Your task to perform on an android device: turn off translation in the chrome app Image 0: 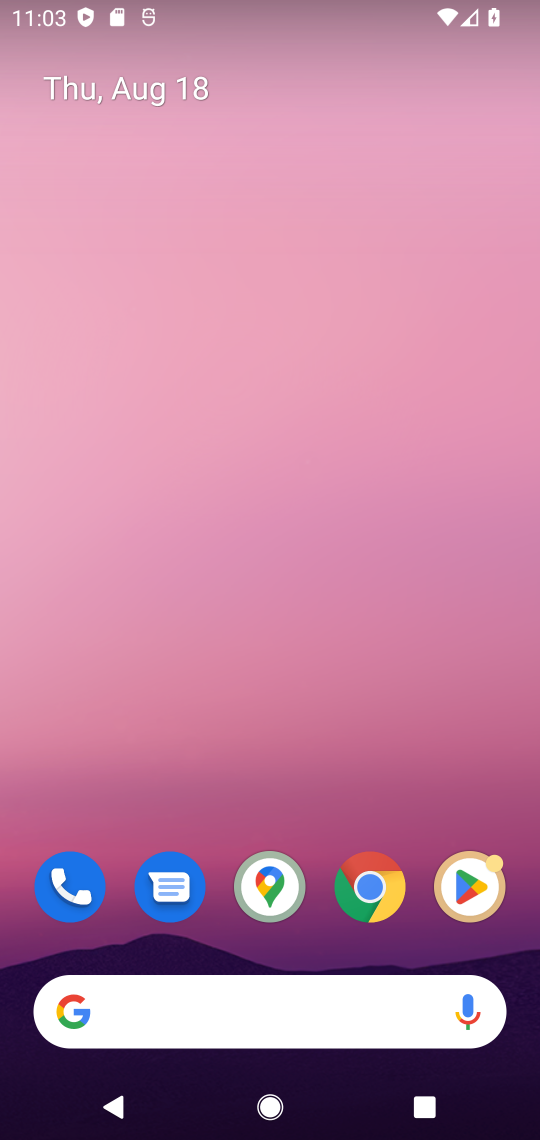
Step 0: click (397, 880)
Your task to perform on an android device: turn off translation in the chrome app Image 1: 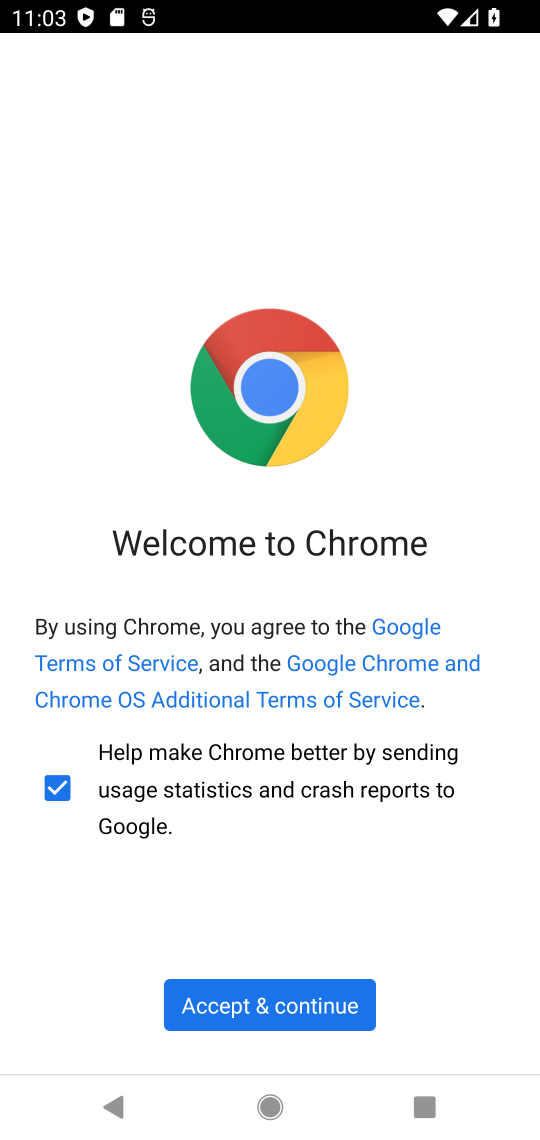
Step 1: click (240, 986)
Your task to perform on an android device: turn off translation in the chrome app Image 2: 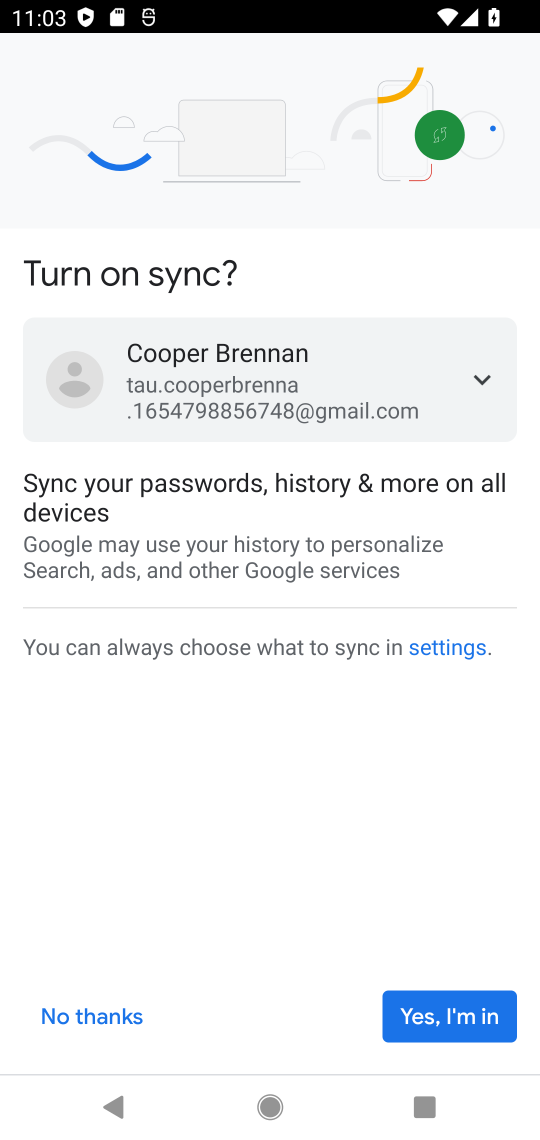
Step 2: click (441, 1013)
Your task to perform on an android device: turn off translation in the chrome app Image 3: 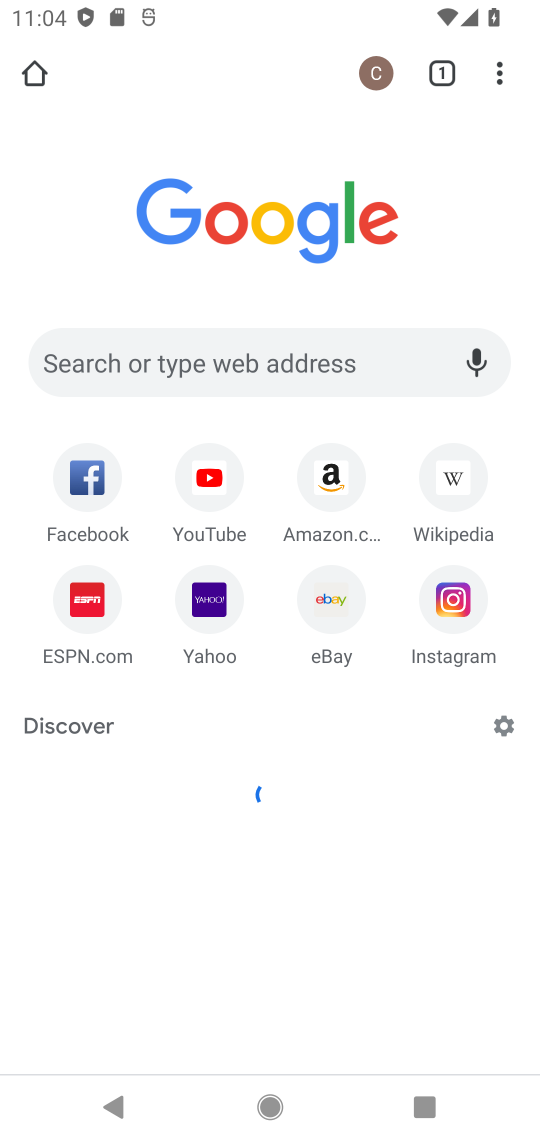
Step 3: click (506, 71)
Your task to perform on an android device: turn off translation in the chrome app Image 4: 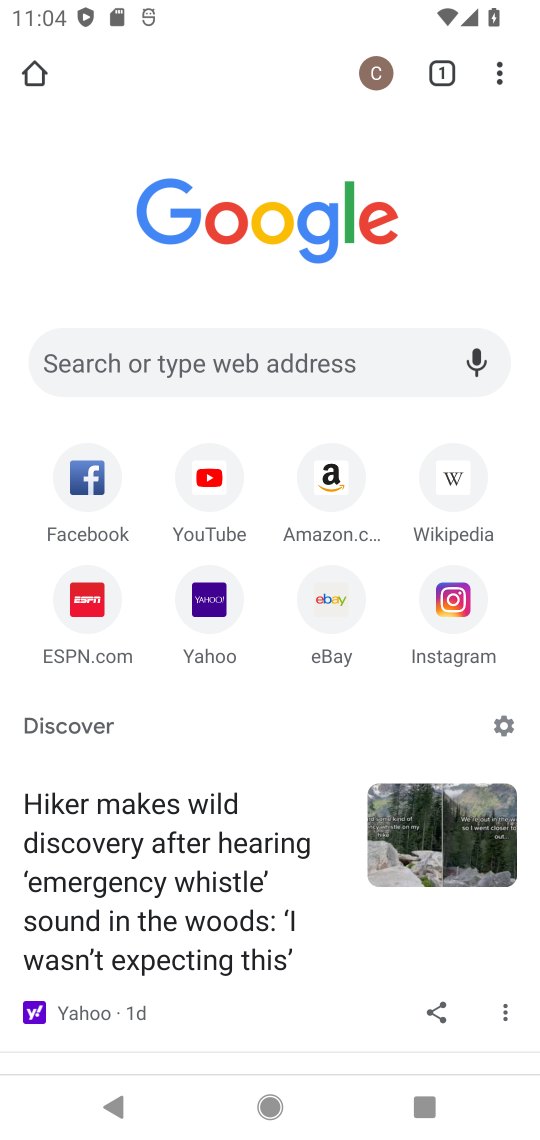
Step 4: click (488, 68)
Your task to perform on an android device: turn off translation in the chrome app Image 5: 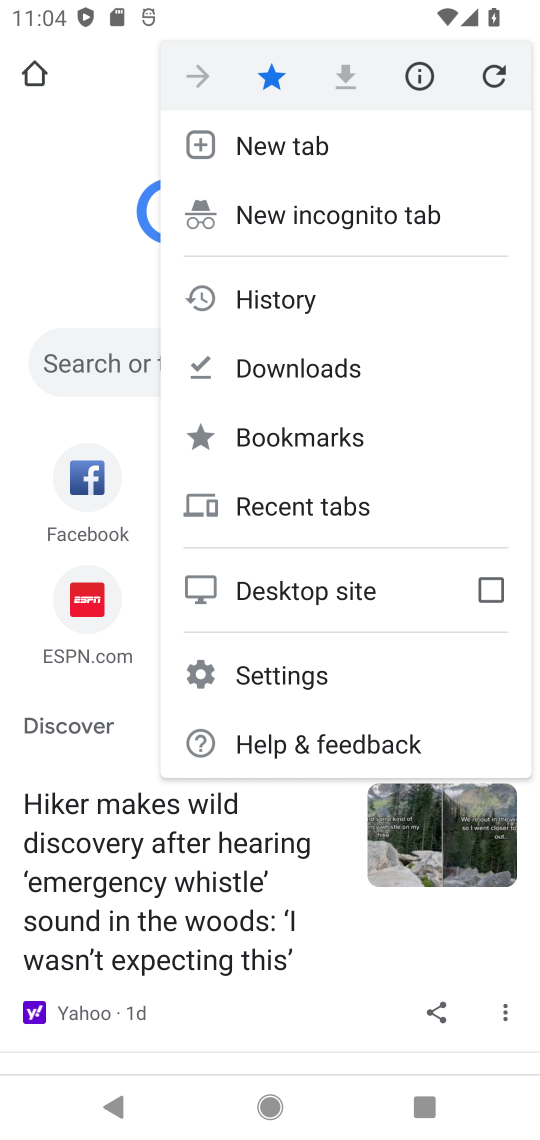
Step 5: click (280, 672)
Your task to perform on an android device: turn off translation in the chrome app Image 6: 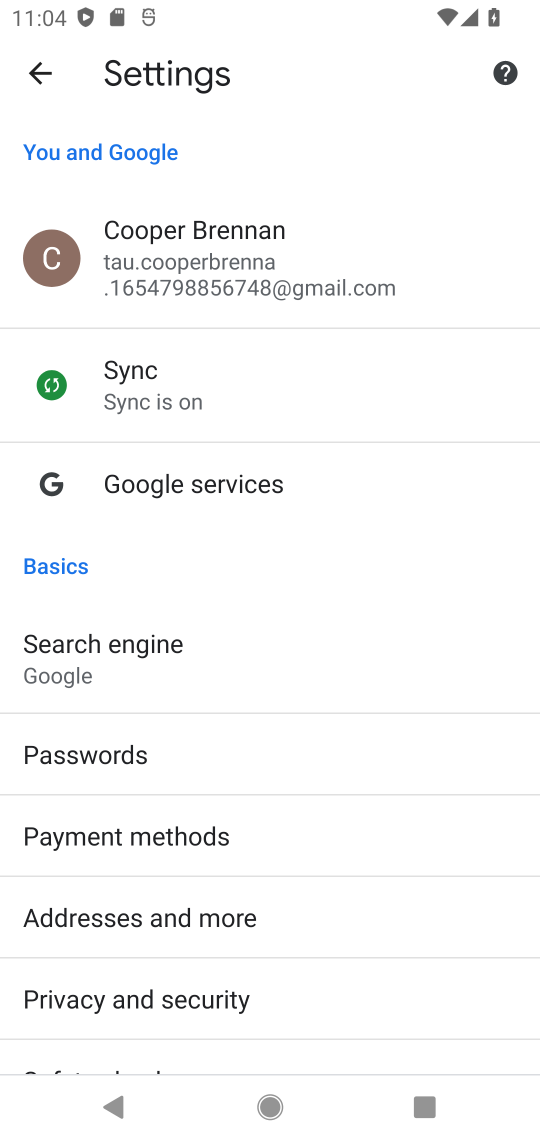
Step 6: drag from (382, 884) to (337, 332)
Your task to perform on an android device: turn off translation in the chrome app Image 7: 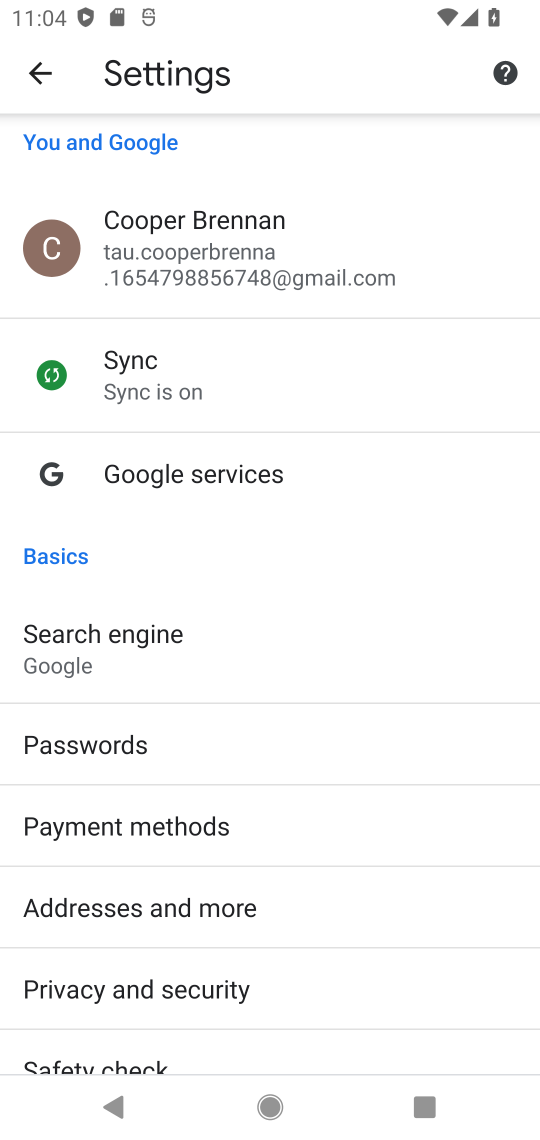
Step 7: drag from (367, 981) to (373, 355)
Your task to perform on an android device: turn off translation in the chrome app Image 8: 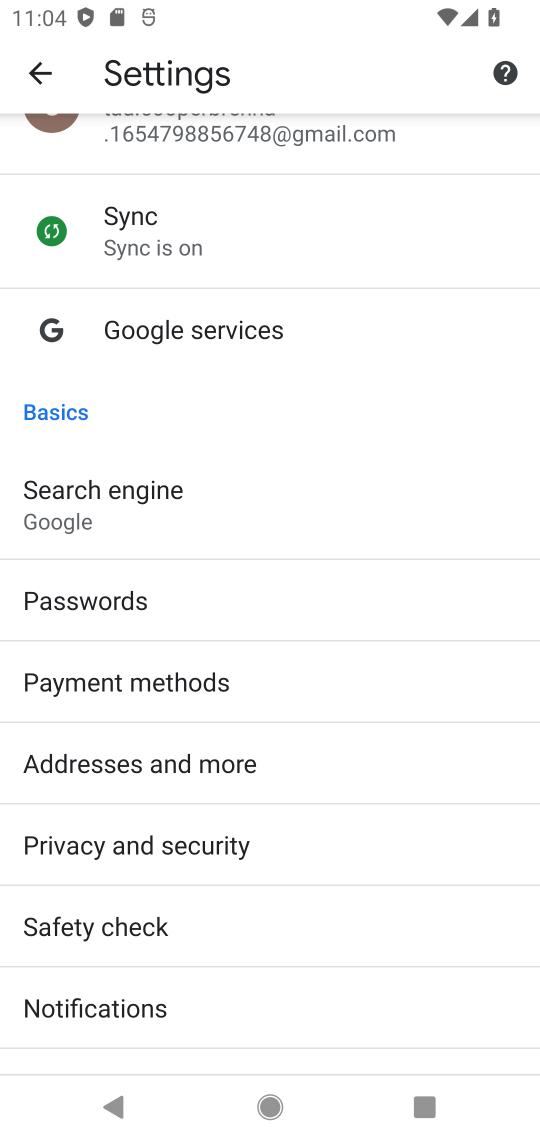
Step 8: drag from (378, 992) to (351, 300)
Your task to perform on an android device: turn off translation in the chrome app Image 9: 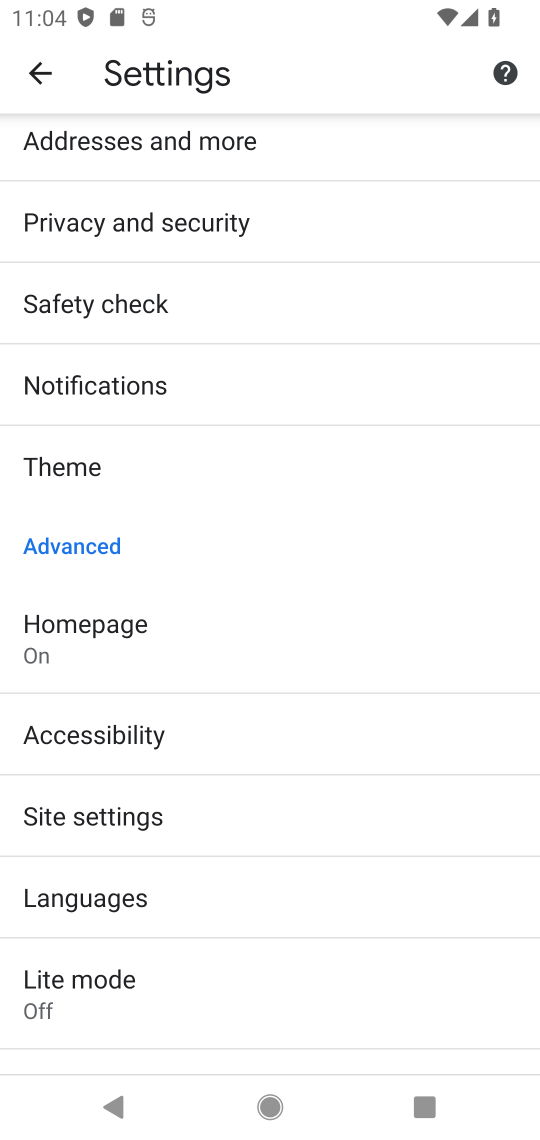
Step 9: click (117, 917)
Your task to perform on an android device: turn off translation in the chrome app Image 10: 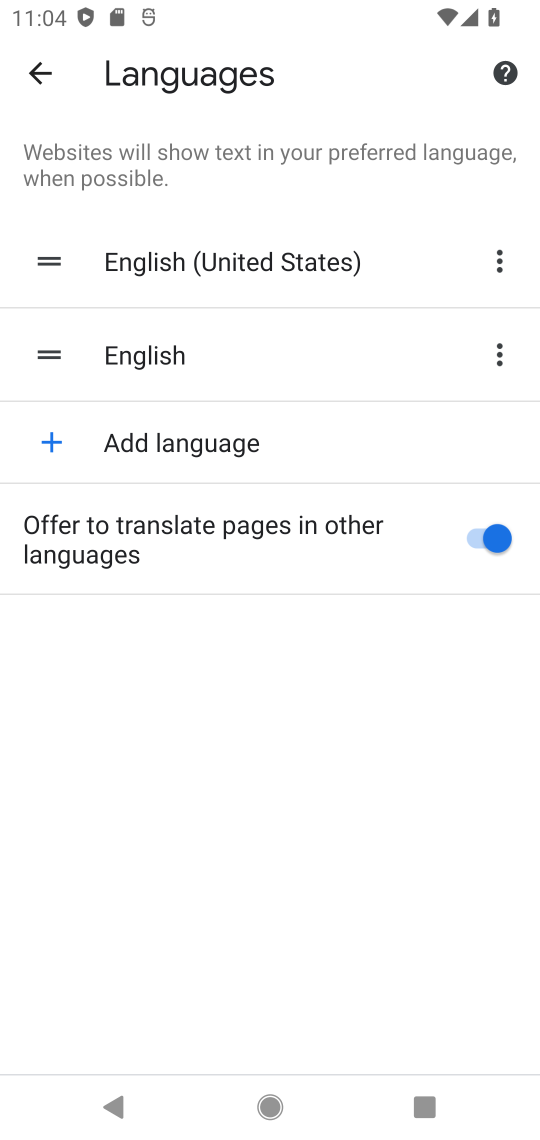
Step 10: click (484, 530)
Your task to perform on an android device: turn off translation in the chrome app Image 11: 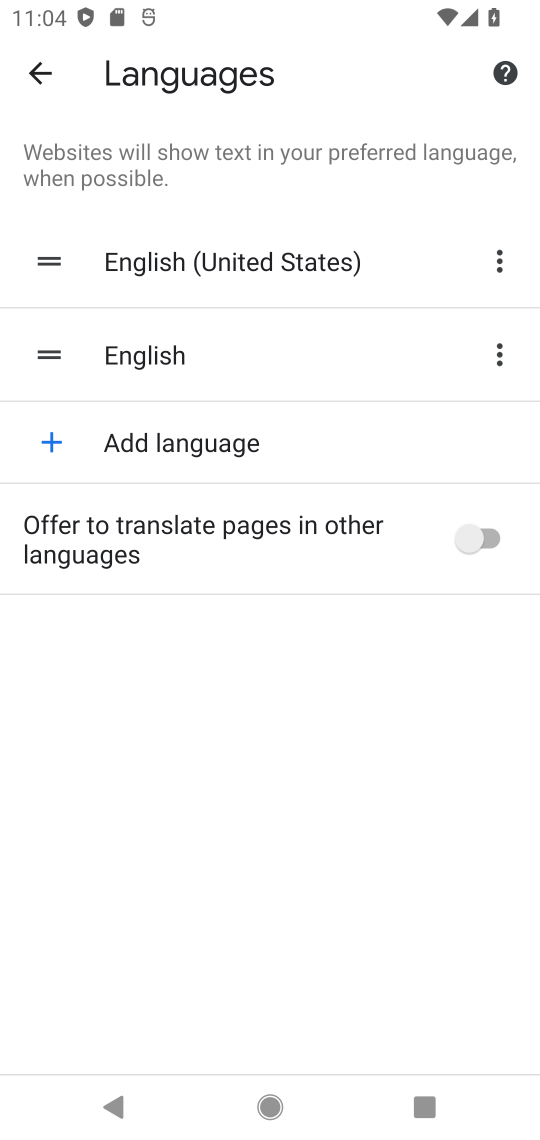
Step 11: task complete